Your task to perform on an android device: search for starred emails in the gmail app Image 0: 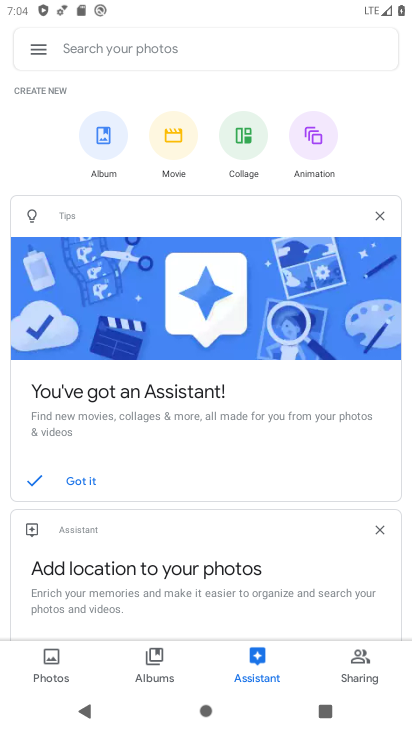
Step 0: press home button
Your task to perform on an android device: search for starred emails in the gmail app Image 1: 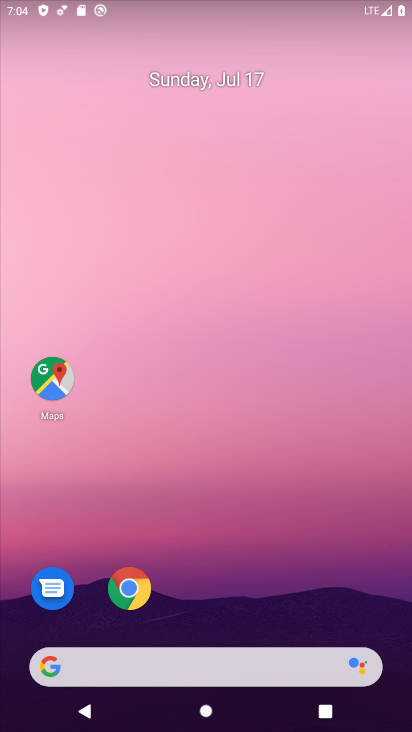
Step 1: drag from (396, 654) to (283, 0)
Your task to perform on an android device: search for starred emails in the gmail app Image 2: 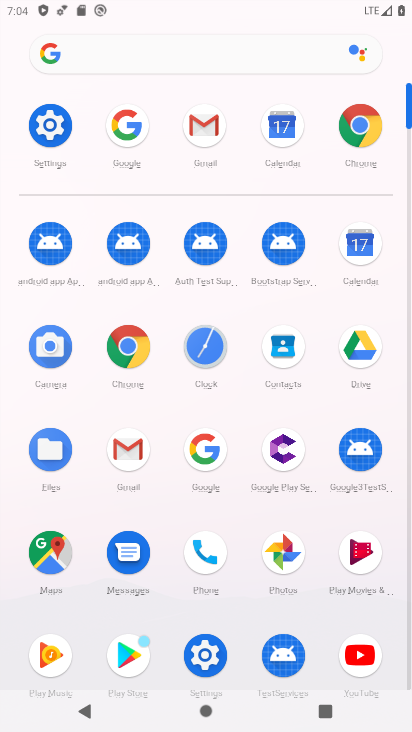
Step 2: click (147, 458)
Your task to perform on an android device: search for starred emails in the gmail app Image 3: 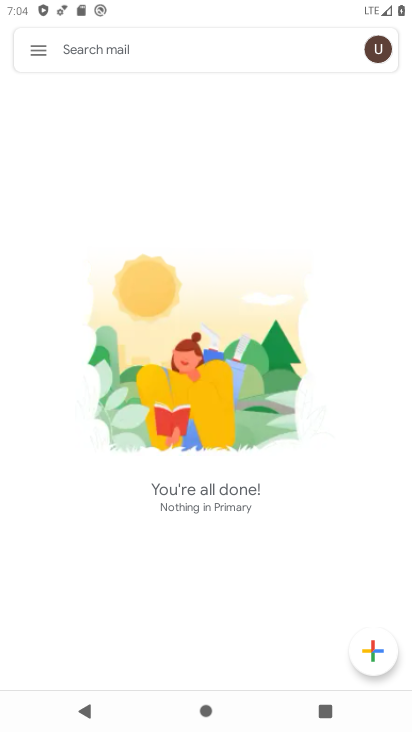
Step 3: click (35, 60)
Your task to perform on an android device: search for starred emails in the gmail app Image 4: 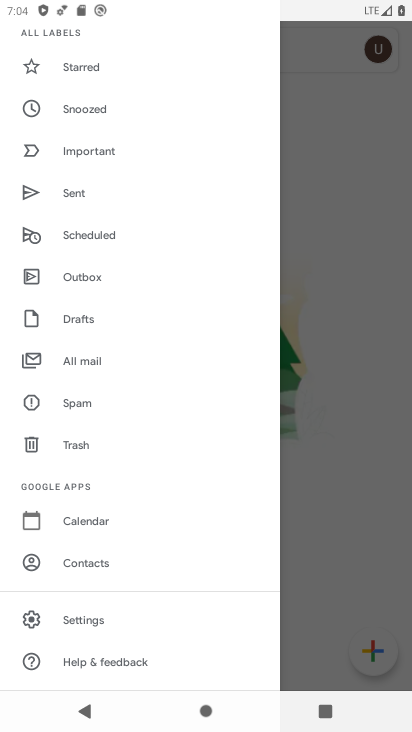
Step 4: click (102, 76)
Your task to perform on an android device: search for starred emails in the gmail app Image 5: 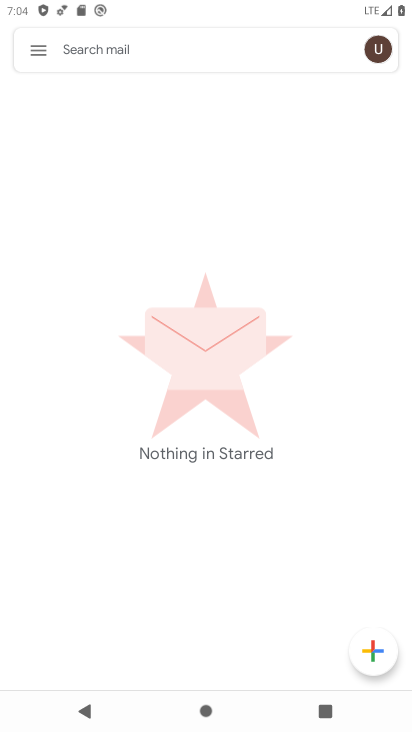
Step 5: task complete